Your task to perform on an android device: find which apps use the phone's location Image 0: 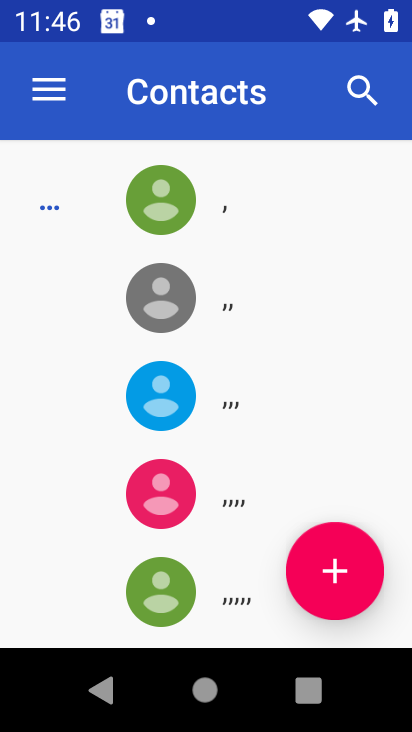
Step 0: press home button
Your task to perform on an android device: find which apps use the phone's location Image 1: 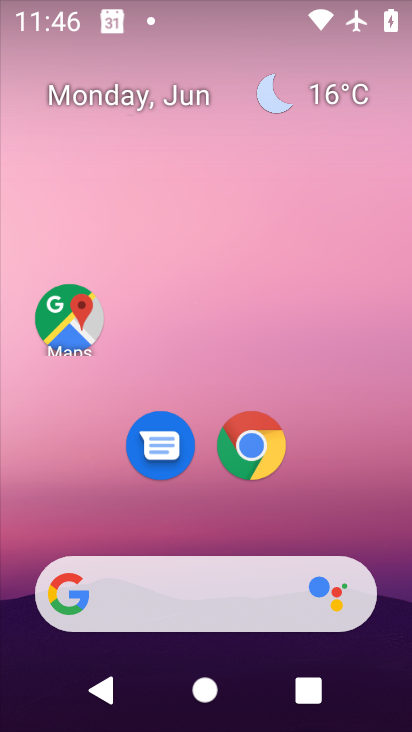
Step 1: drag from (349, 495) to (340, 92)
Your task to perform on an android device: find which apps use the phone's location Image 2: 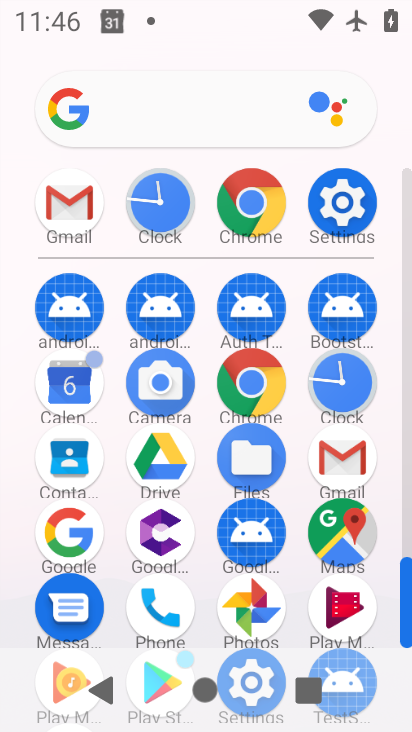
Step 2: click (336, 201)
Your task to perform on an android device: find which apps use the phone's location Image 3: 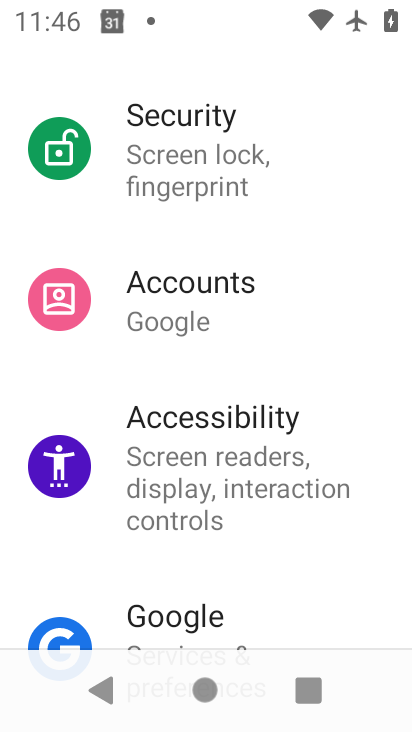
Step 3: drag from (332, 620) to (325, 715)
Your task to perform on an android device: find which apps use the phone's location Image 4: 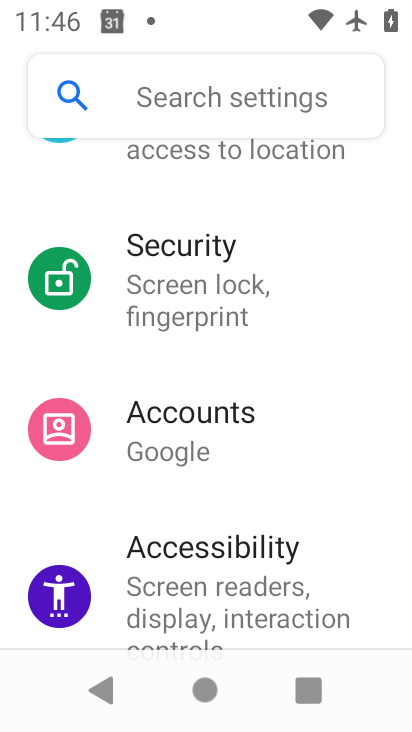
Step 4: click (223, 150)
Your task to perform on an android device: find which apps use the phone's location Image 5: 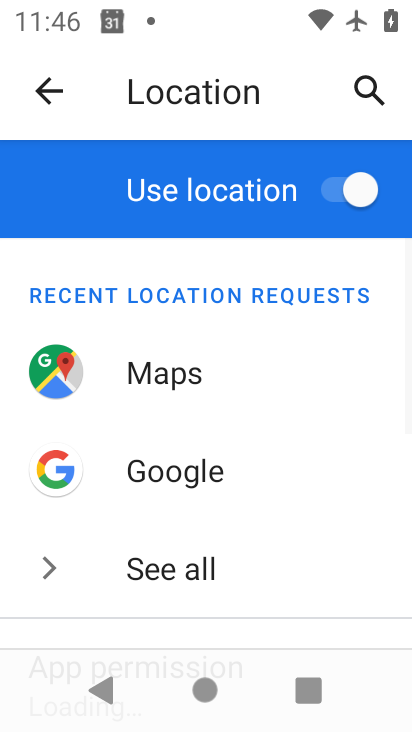
Step 5: drag from (333, 575) to (293, 163)
Your task to perform on an android device: find which apps use the phone's location Image 6: 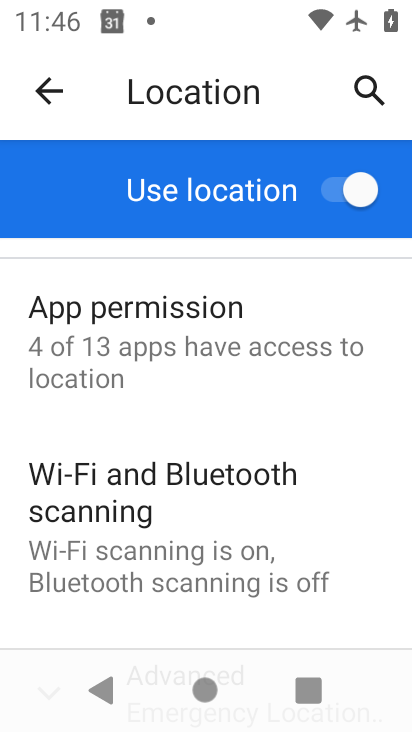
Step 6: click (139, 314)
Your task to perform on an android device: find which apps use the phone's location Image 7: 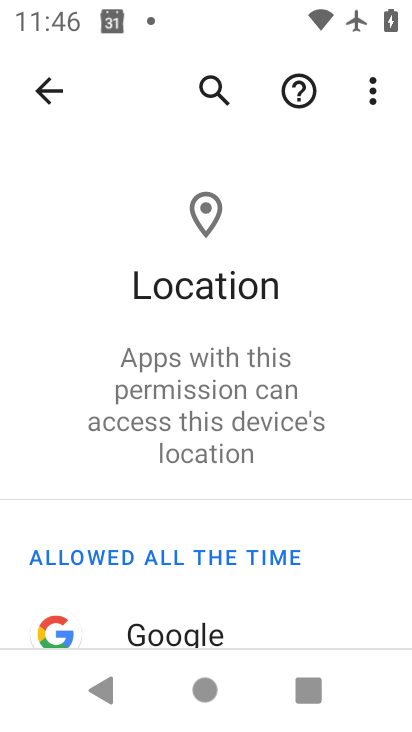
Step 7: task complete